Your task to perform on an android device: Is it going to rain tomorrow? Image 0: 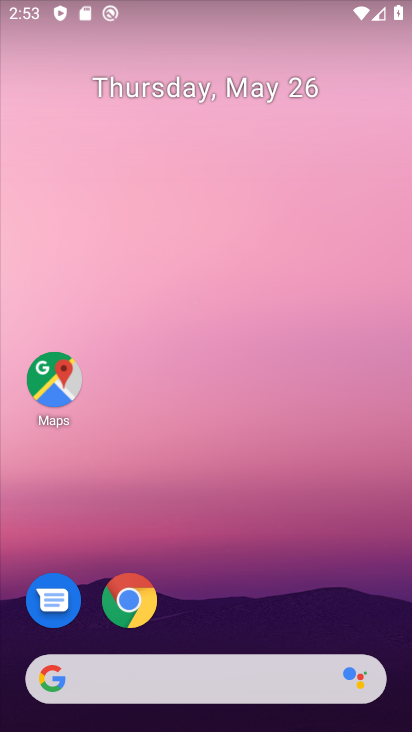
Step 0: drag from (261, 600) to (275, 138)
Your task to perform on an android device: Is it going to rain tomorrow? Image 1: 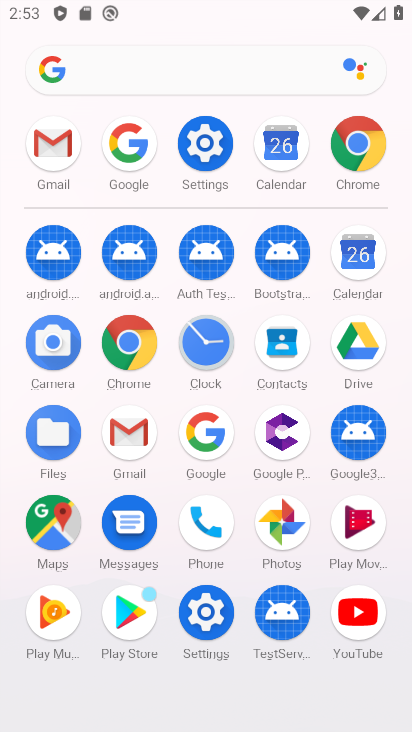
Step 1: click (112, 145)
Your task to perform on an android device: Is it going to rain tomorrow? Image 2: 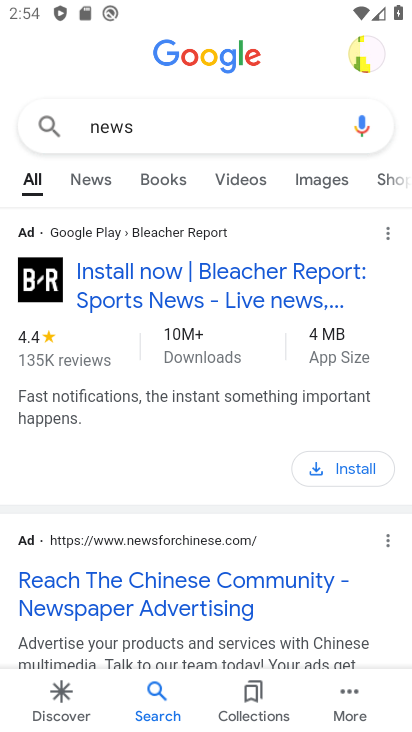
Step 2: click (136, 127)
Your task to perform on an android device: Is it going to rain tomorrow? Image 3: 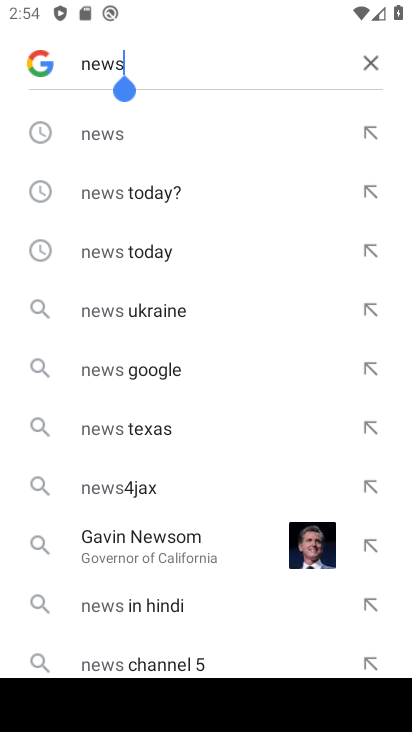
Step 3: click (382, 69)
Your task to perform on an android device: Is it going to rain tomorrow? Image 4: 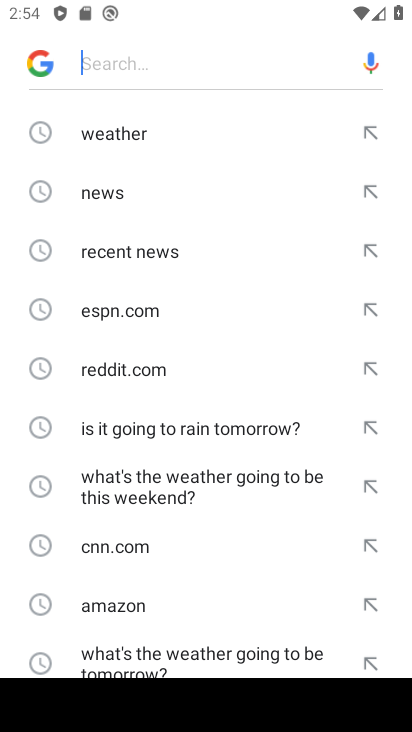
Step 4: click (125, 141)
Your task to perform on an android device: Is it going to rain tomorrow? Image 5: 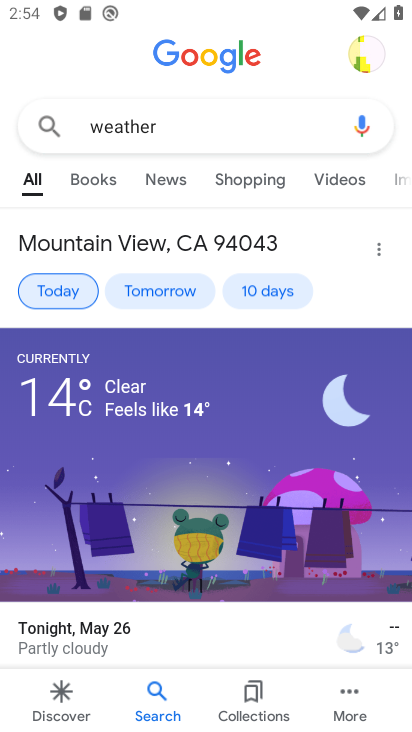
Step 5: task complete